Your task to perform on an android device: Toggle the flashlight Image 0: 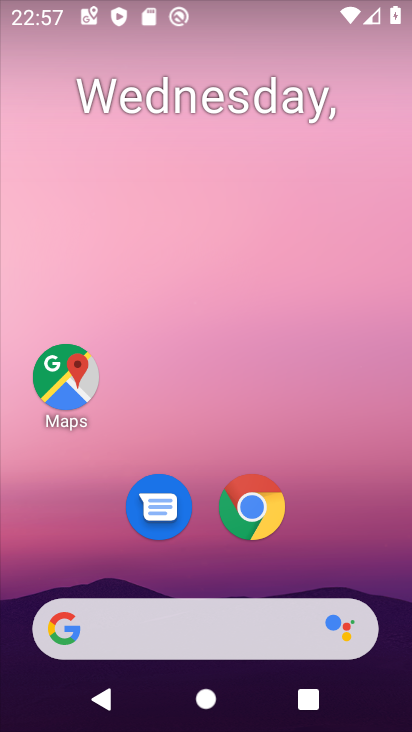
Step 0: drag from (323, 544) to (352, 128)
Your task to perform on an android device: Toggle the flashlight Image 1: 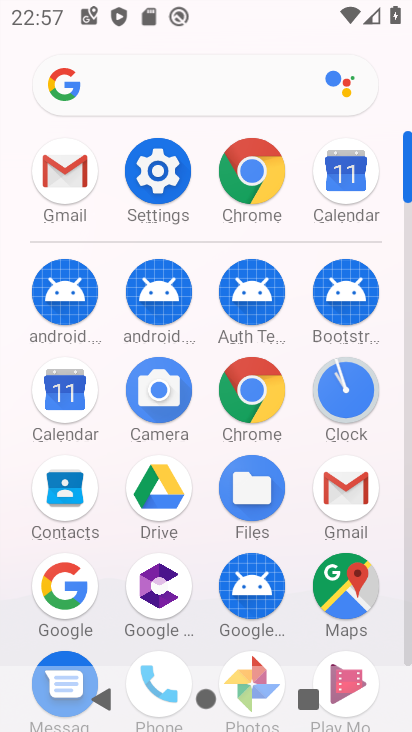
Step 1: click (162, 159)
Your task to perform on an android device: Toggle the flashlight Image 2: 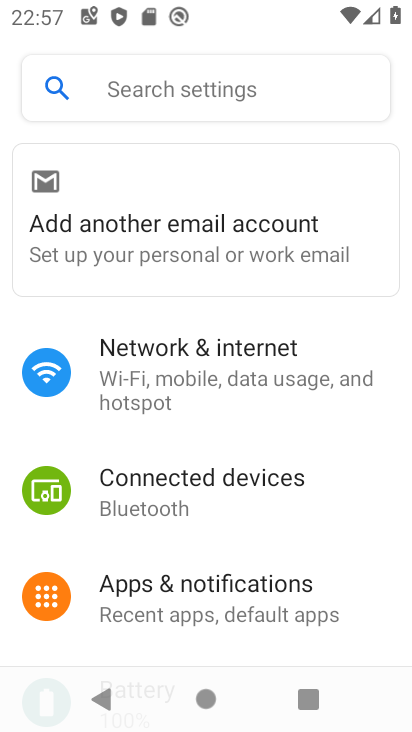
Step 2: task complete